Your task to perform on an android device: delete the emails in spam in the gmail app Image 0: 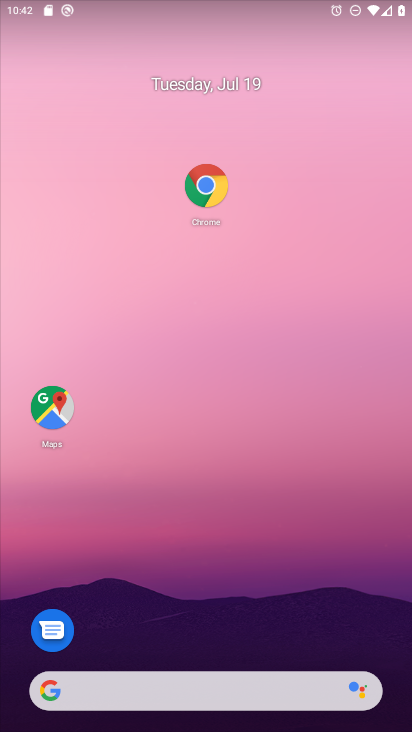
Step 0: drag from (174, 566) to (155, 168)
Your task to perform on an android device: delete the emails in spam in the gmail app Image 1: 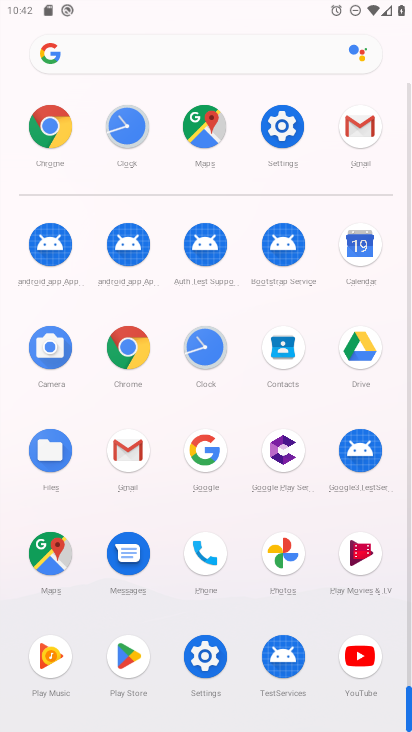
Step 1: click (128, 456)
Your task to perform on an android device: delete the emails in spam in the gmail app Image 2: 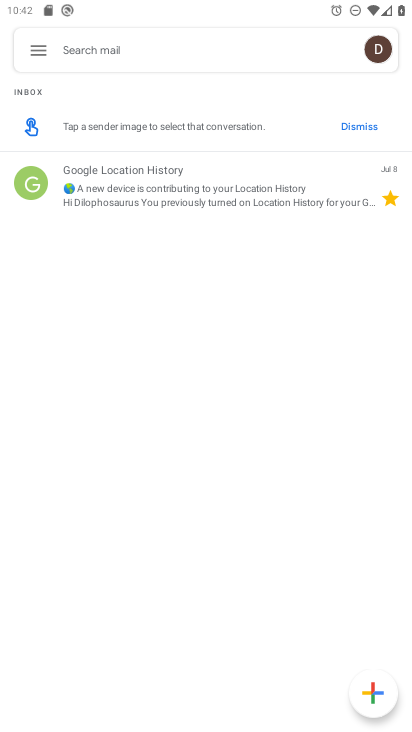
Step 2: click (39, 53)
Your task to perform on an android device: delete the emails in spam in the gmail app Image 3: 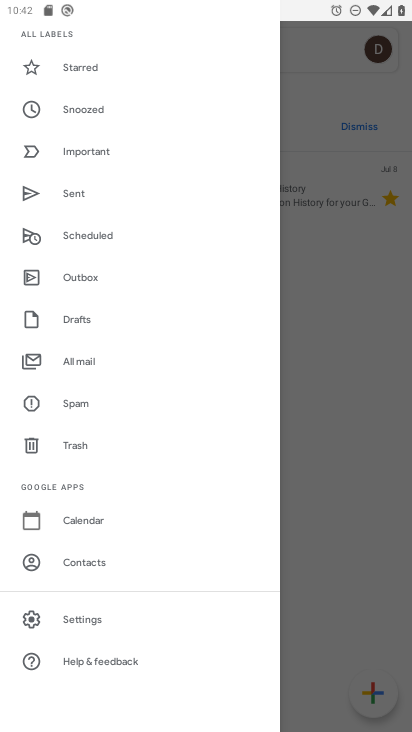
Step 3: click (89, 401)
Your task to perform on an android device: delete the emails in spam in the gmail app Image 4: 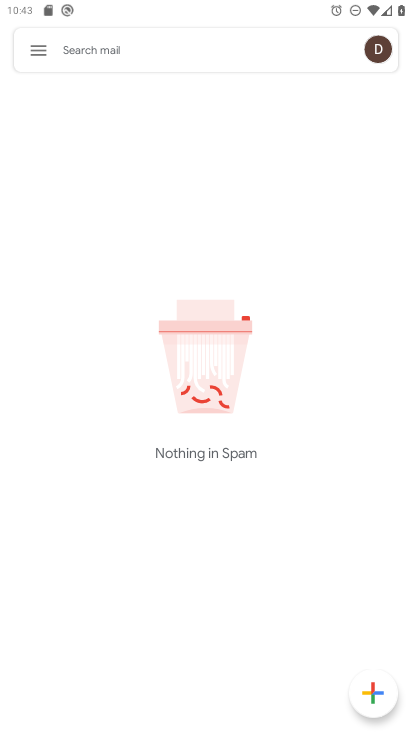
Step 4: click (40, 62)
Your task to perform on an android device: delete the emails in spam in the gmail app Image 5: 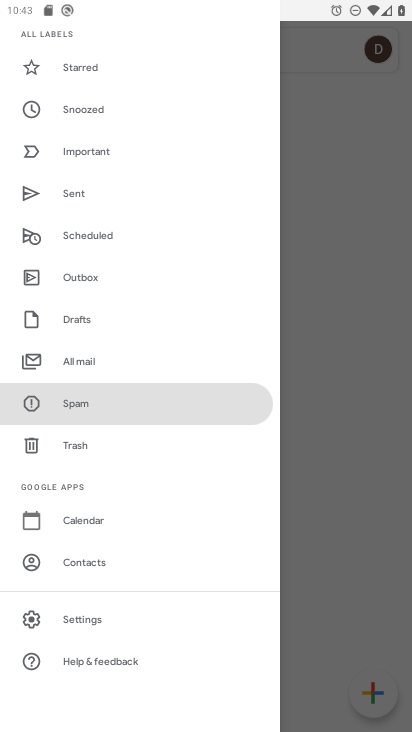
Step 5: task complete